Your task to perform on an android device: Turn on the flashlight Image 0: 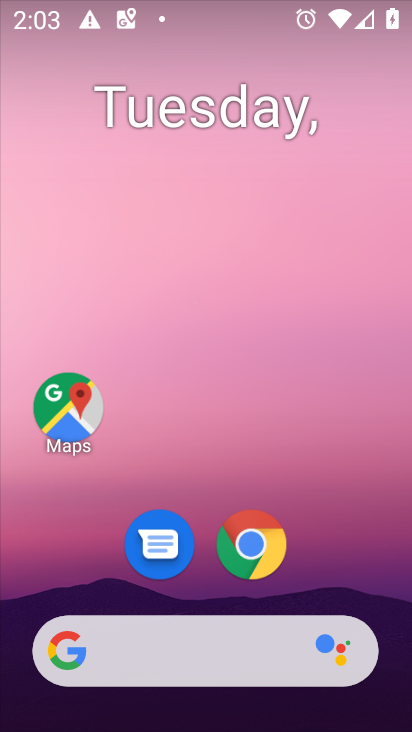
Step 0: drag from (283, 428) to (285, 77)
Your task to perform on an android device: Turn on the flashlight Image 1: 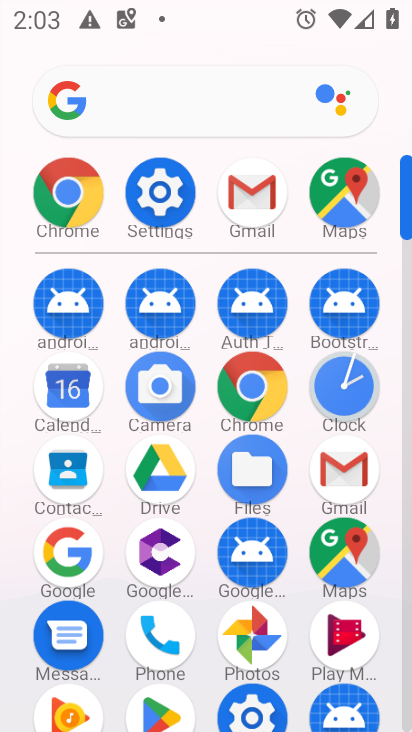
Step 1: click (155, 199)
Your task to perform on an android device: Turn on the flashlight Image 2: 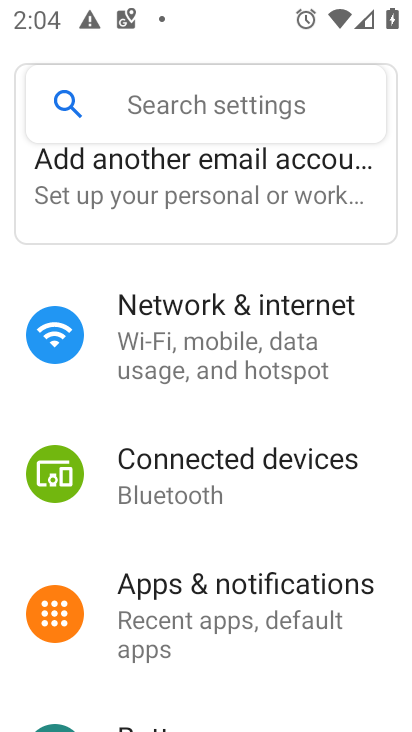
Step 2: drag from (275, 668) to (284, 206)
Your task to perform on an android device: Turn on the flashlight Image 3: 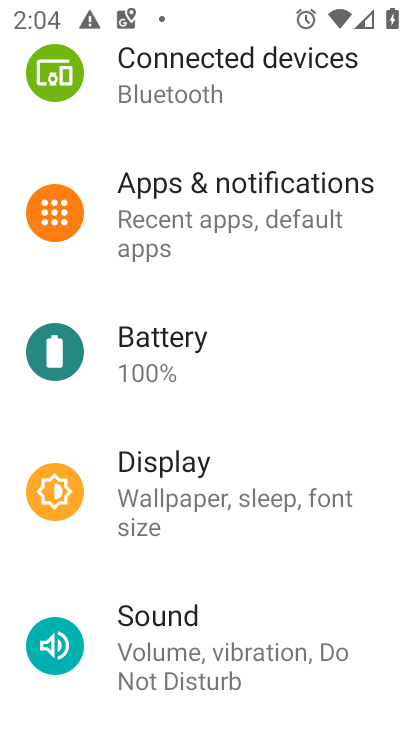
Step 3: click (180, 484)
Your task to perform on an android device: Turn on the flashlight Image 4: 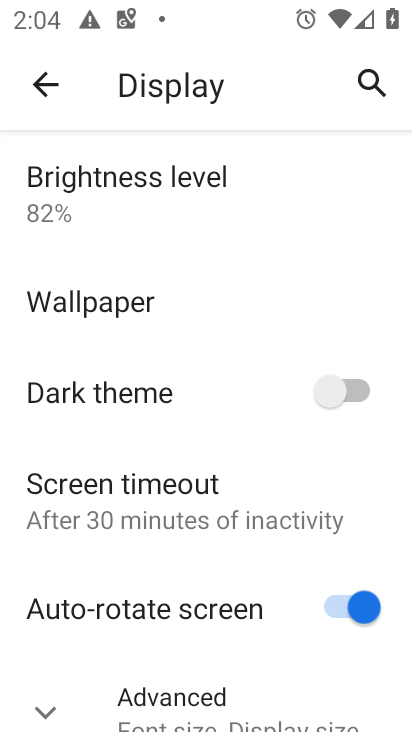
Step 4: task complete